Your task to perform on an android device: turn pop-ups on in chrome Image 0: 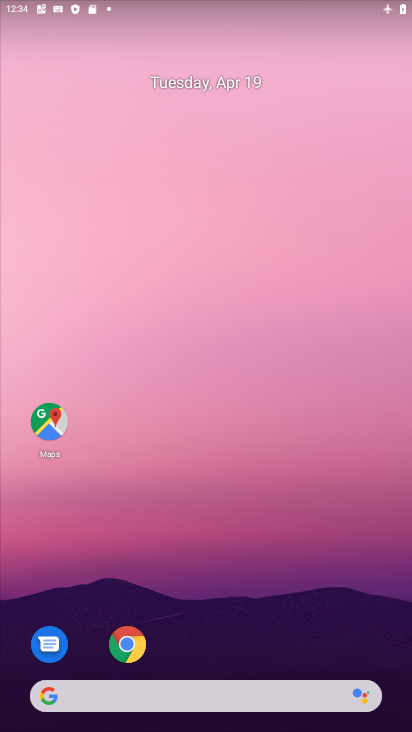
Step 0: click (122, 633)
Your task to perform on an android device: turn pop-ups on in chrome Image 1: 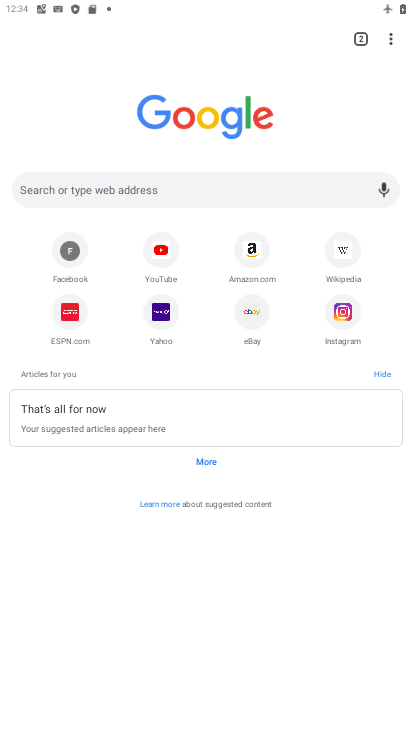
Step 1: click (401, 44)
Your task to perform on an android device: turn pop-ups on in chrome Image 2: 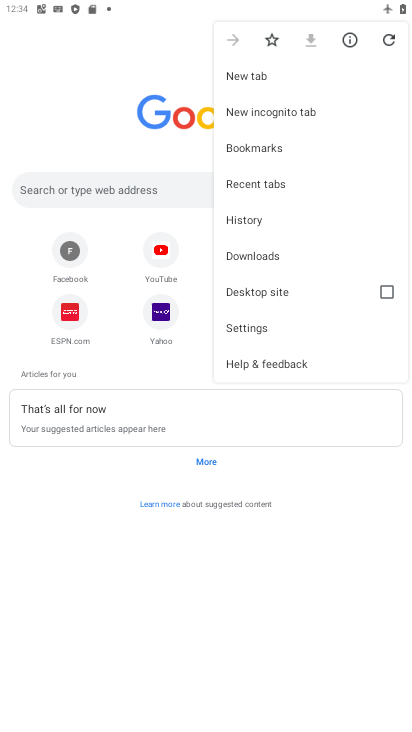
Step 2: click (280, 319)
Your task to perform on an android device: turn pop-ups on in chrome Image 3: 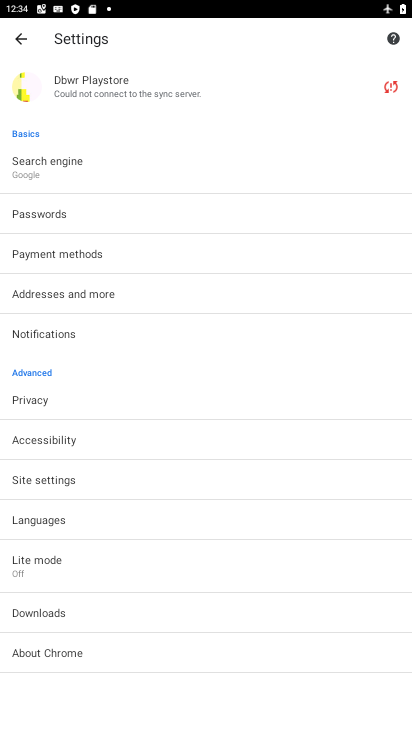
Step 3: click (208, 490)
Your task to perform on an android device: turn pop-ups on in chrome Image 4: 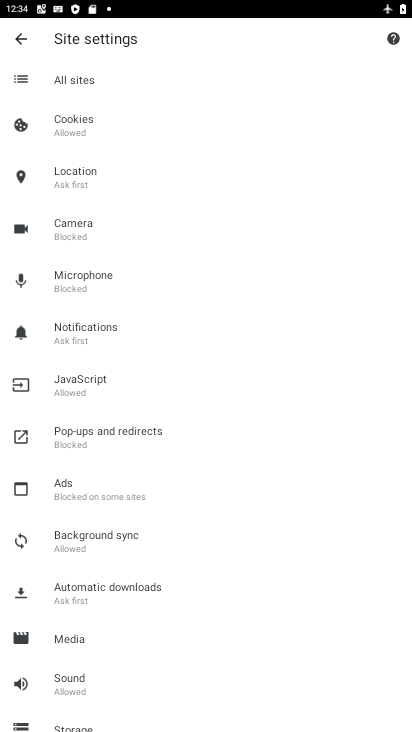
Step 4: click (168, 436)
Your task to perform on an android device: turn pop-ups on in chrome Image 5: 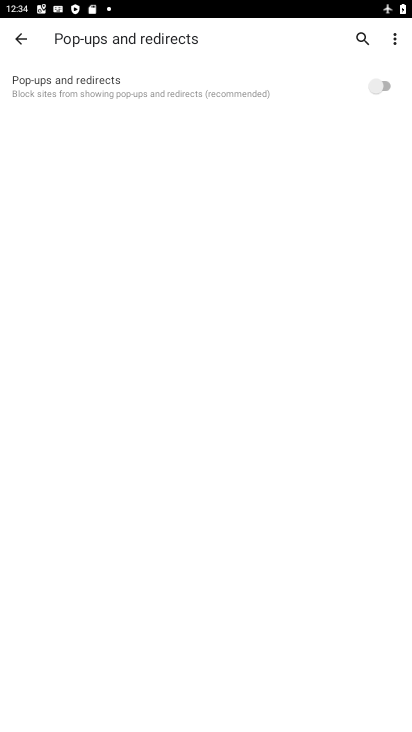
Step 5: click (378, 91)
Your task to perform on an android device: turn pop-ups on in chrome Image 6: 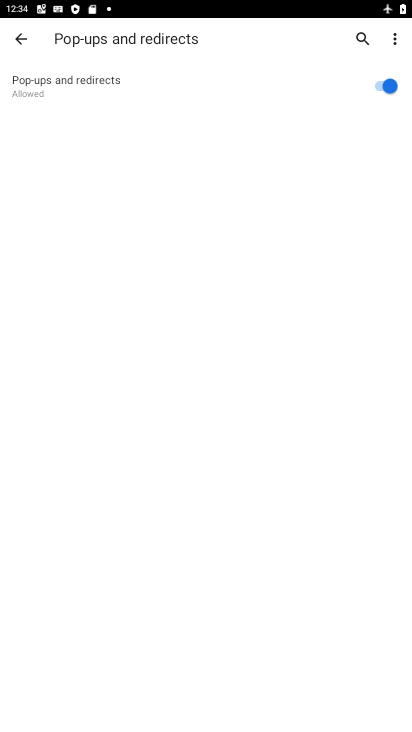
Step 6: task complete